Your task to perform on an android device: set the timer Image 0: 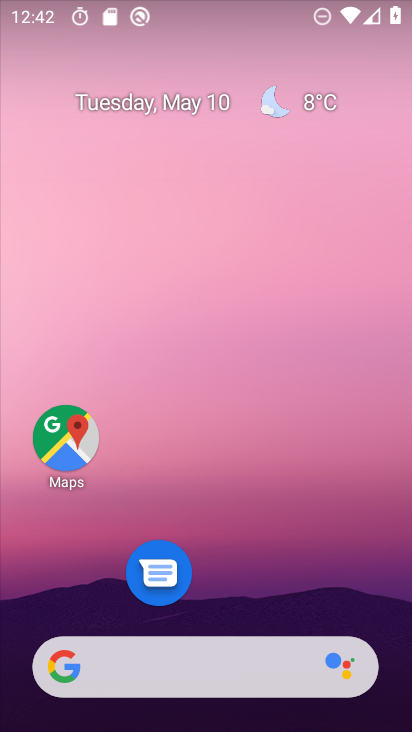
Step 0: drag from (267, 588) to (330, 349)
Your task to perform on an android device: set the timer Image 1: 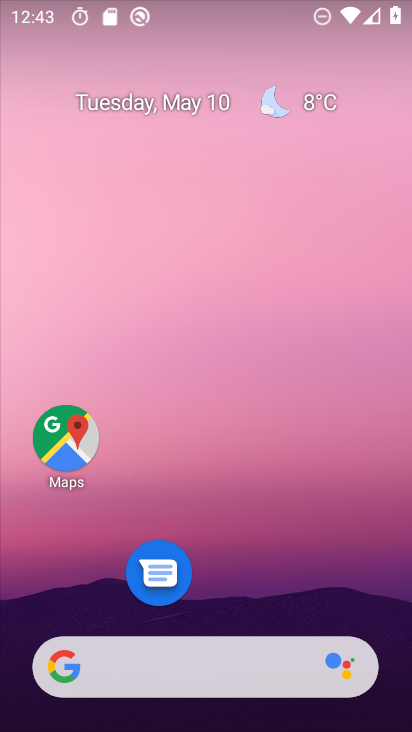
Step 1: drag from (238, 602) to (205, 12)
Your task to perform on an android device: set the timer Image 2: 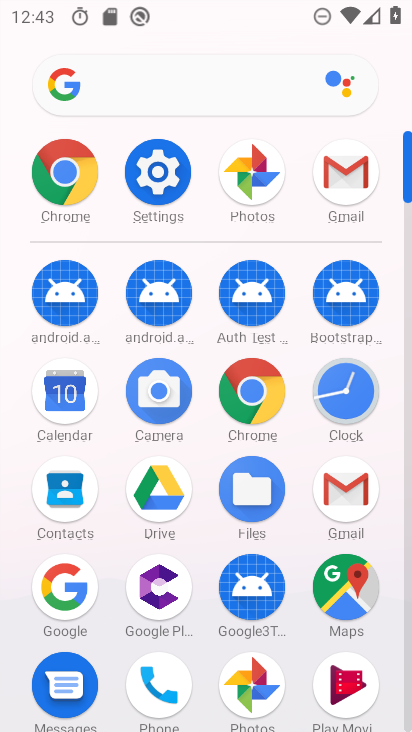
Step 2: click (346, 414)
Your task to perform on an android device: set the timer Image 3: 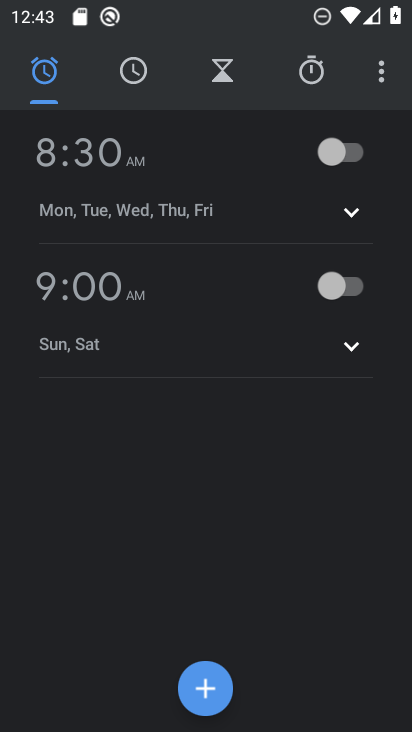
Step 3: click (217, 81)
Your task to perform on an android device: set the timer Image 4: 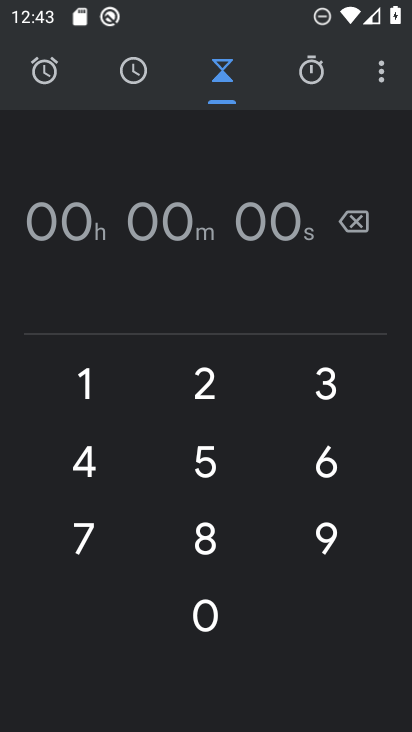
Step 4: click (213, 385)
Your task to perform on an android device: set the timer Image 5: 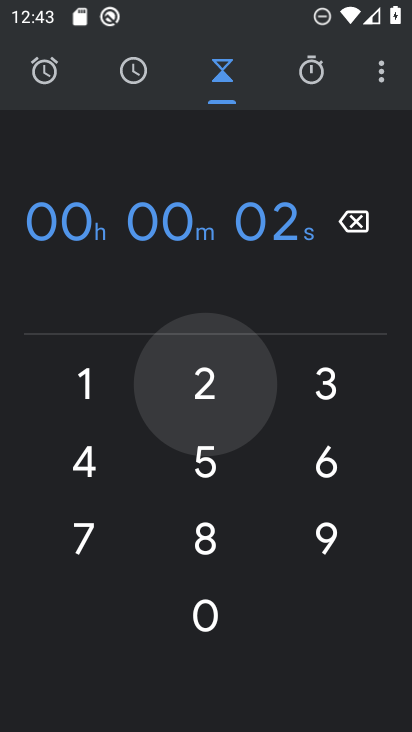
Step 5: click (215, 446)
Your task to perform on an android device: set the timer Image 6: 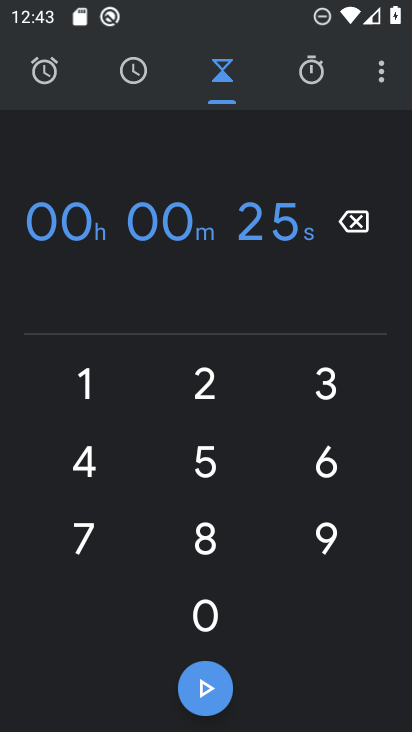
Step 6: click (96, 357)
Your task to perform on an android device: set the timer Image 7: 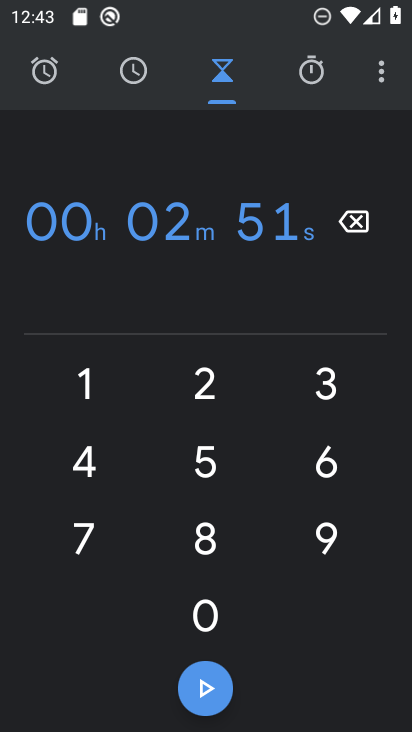
Step 7: click (73, 465)
Your task to perform on an android device: set the timer Image 8: 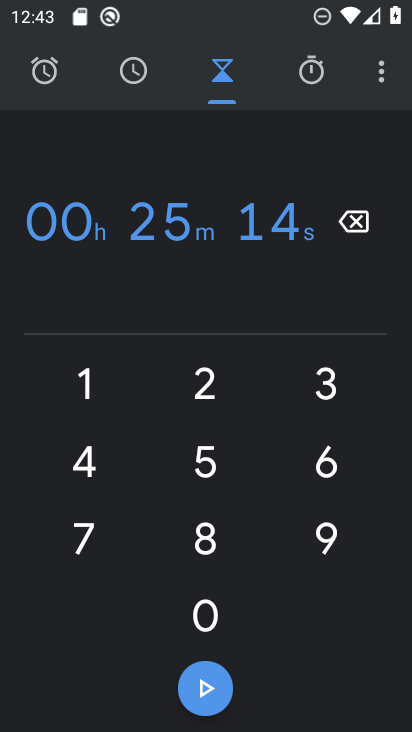
Step 8: click (222, 688)
Your task to perform on an android device: set the timer Image 9: 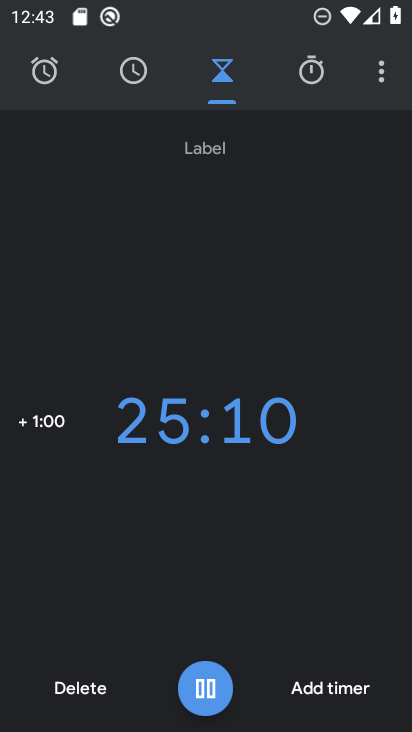
Step 9: task complete